Your task to perform on an android device: turn off airplane mode Image 0: 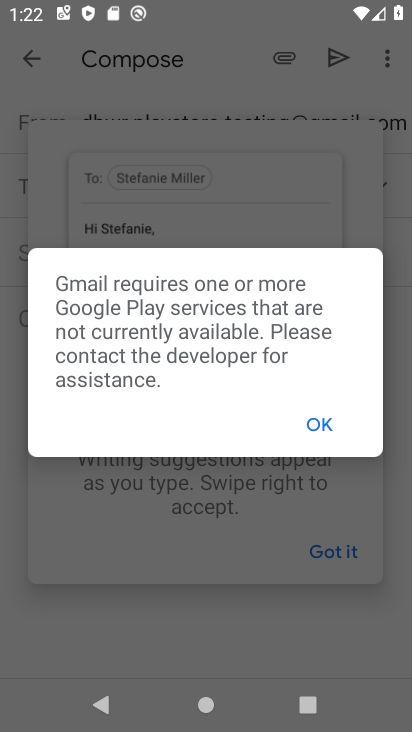
Step 0: press home button
Your task to perform on an android device: turn off airplane mode Image 1: 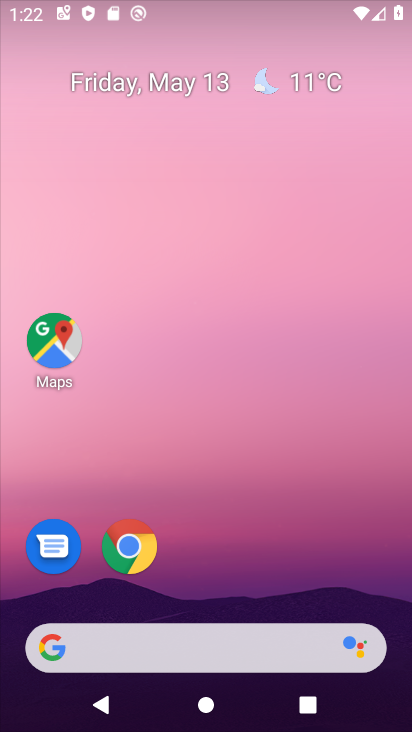
Step 1: drag from (234, 591) to (281, 0)
Your task to perform on an android device: turn off airplane mode Image 2: 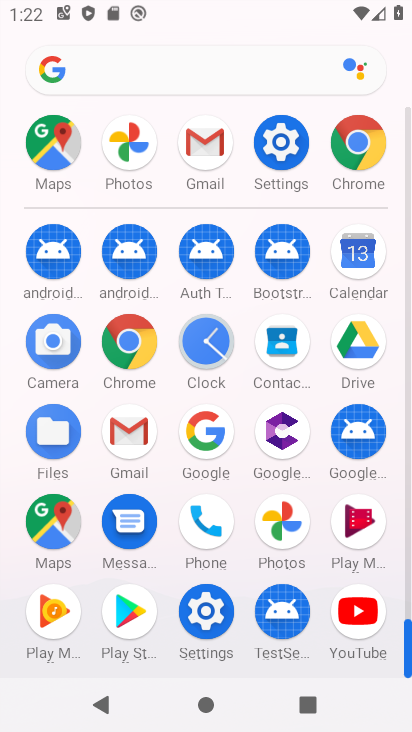
Step 2: click (280, 164)
Your task to perform on an android device: turn off airplane mode Image 3: 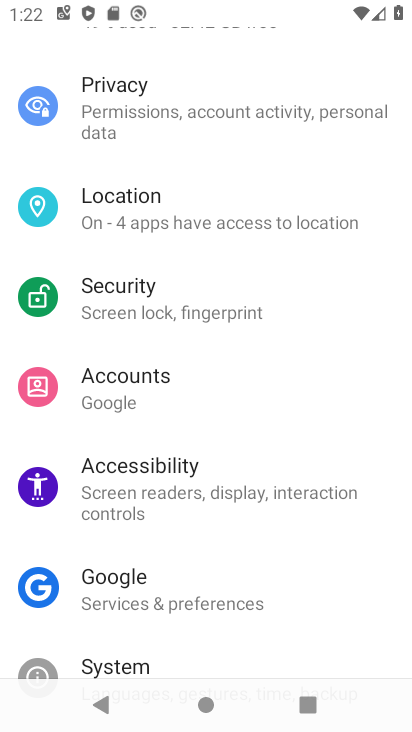
Step 3: drag from (203, 356) to (176, 708)
Your task to perform on an android device: turn off airplane mode Image 4: 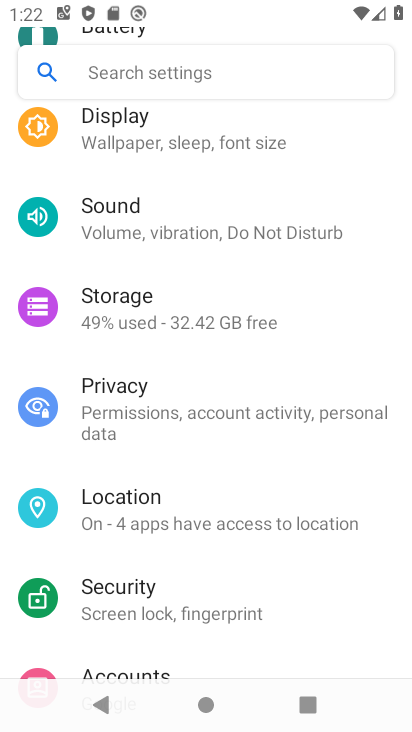
Step 4: drag from (169, 422) to (146, 679)
Your task to perform on an android device: turn off airplane mode Image 5: 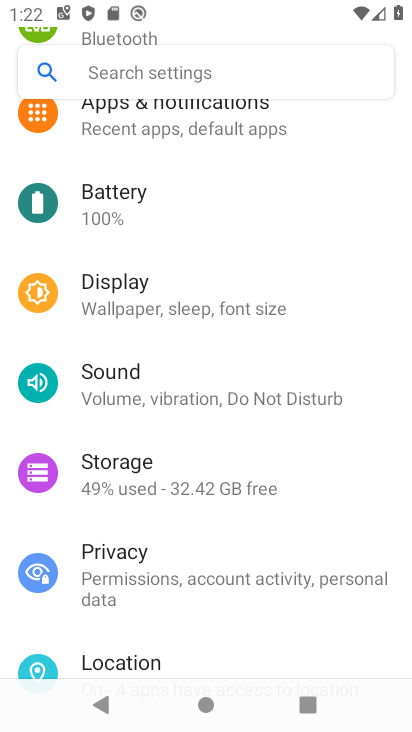
Step 5: drag from (221, 478) to (206, 657)
Your task to perform on an android device: turn off airplane mode Image 6: 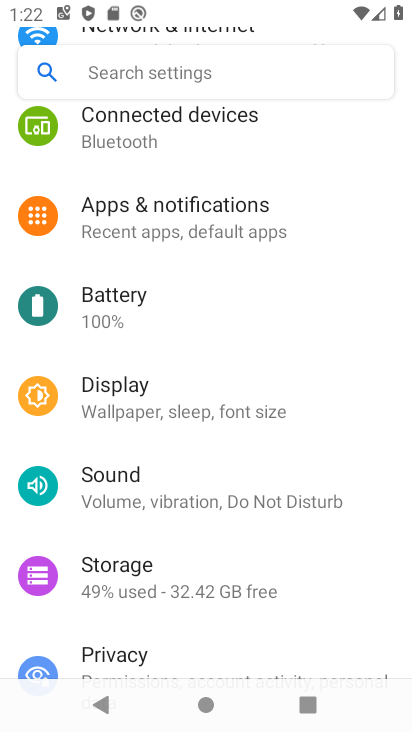
Step 6: drag from (260, 337) to (230, 667)
Your task to perform on an android device: turn off airplane mode Image 7: 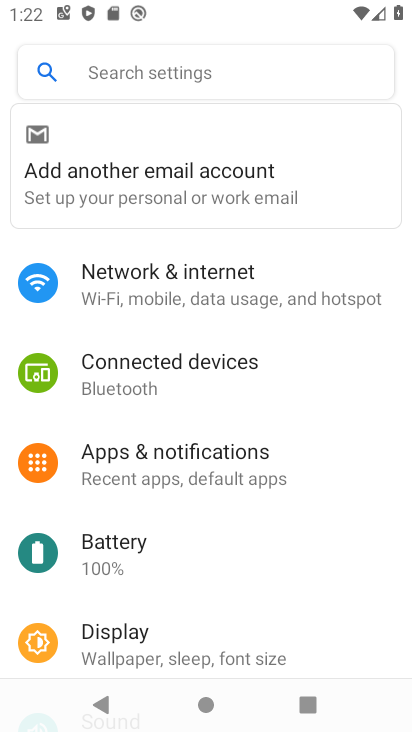
Step 7: click (248, 291)
Your task to perform on an android device: turn off airplane mode Image 8: 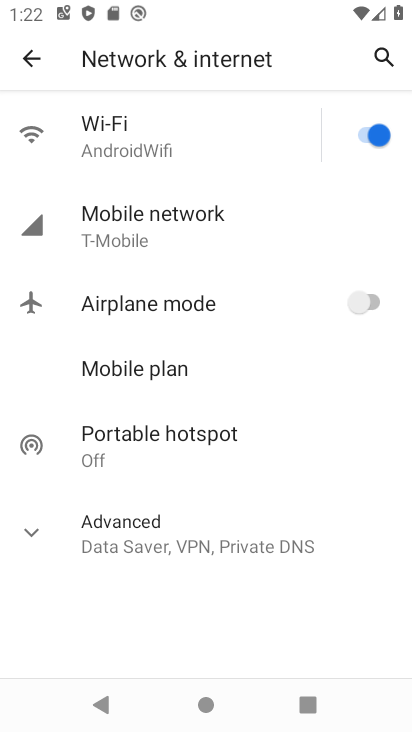
Step 8: task complete